Your task to perform on an android device: Open the map Image 0: 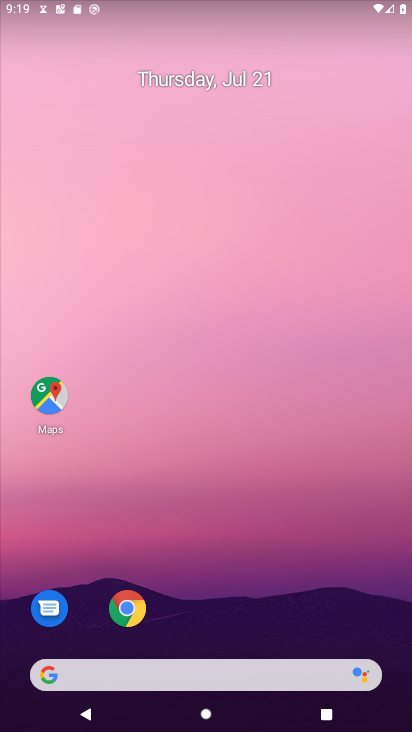
Step 0: click (45, 389)
Your task to perform on an android device: Open the map Image 1: 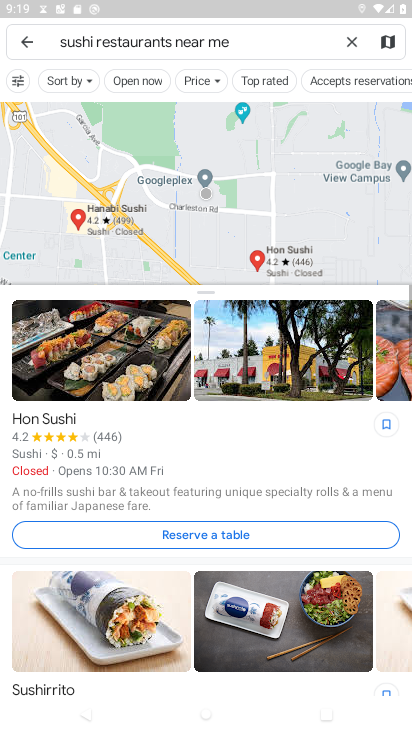
Step 1: task complete